Your task to perform on an android device: clear history in the chrome app Image 0: 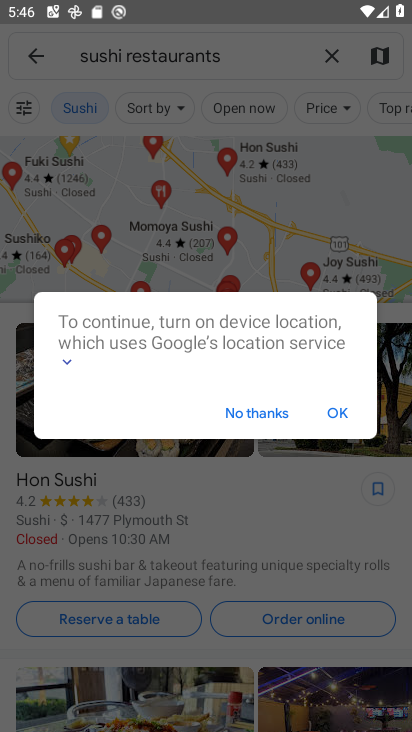
Step 0: press home button
Your task to perform on an android device: clear history in the chrome app Image 1: 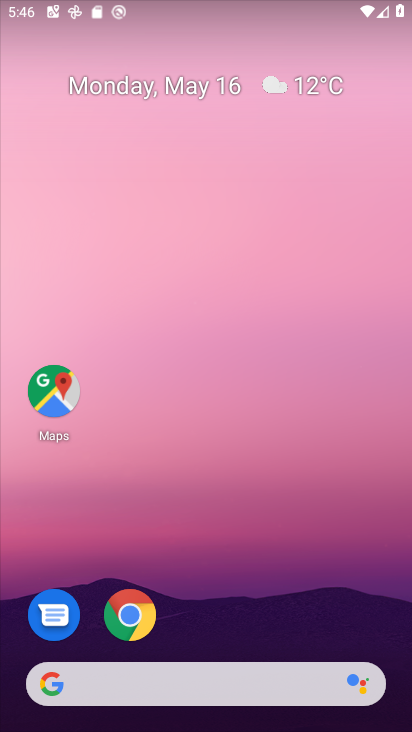
Step 1: click (134, 629)
Your task to perform on an android device: clear history in the chrome app Image 2: 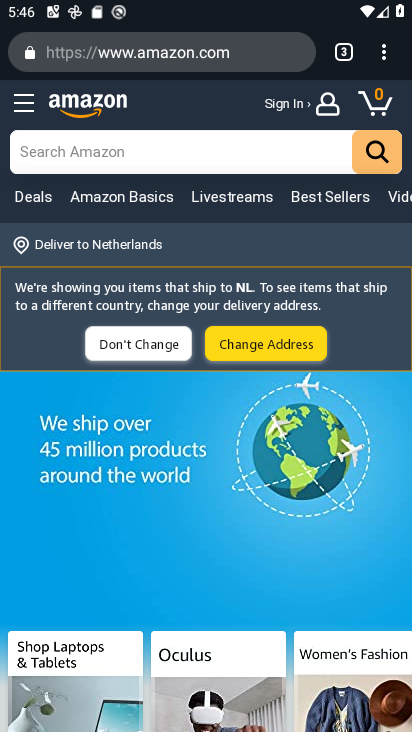
Step 2: click (383, 60)
Your task to perform on an android device: clear history in the chrome app Image 3: 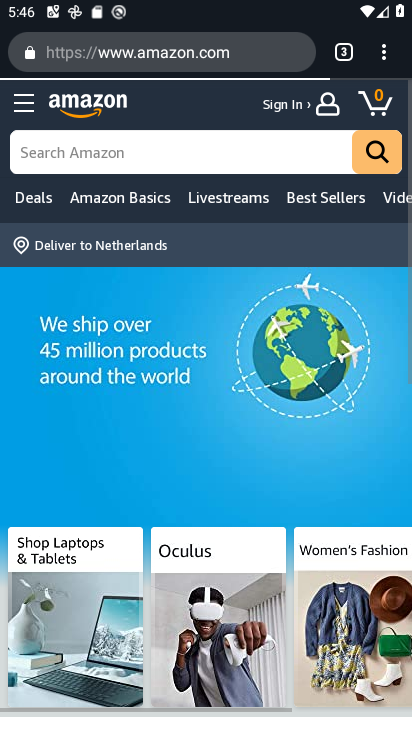
Step 3: click (384, 50)
Your task to perform on an android device: clear history in the chrome app Image 4: 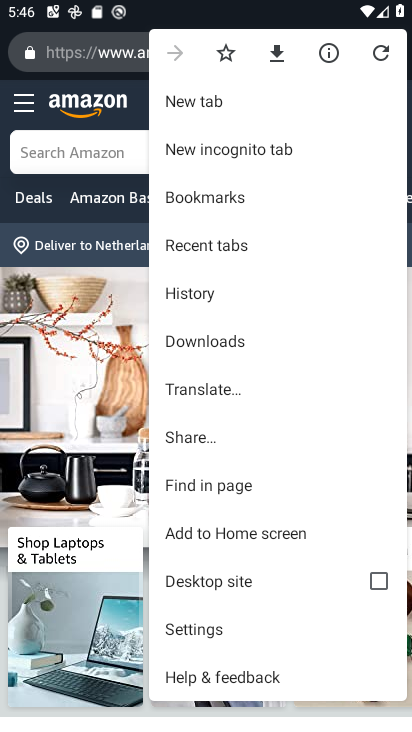
Step 4: click (200, 297)
Your task to perform on an android device: clear history in the chrome app Image 5: 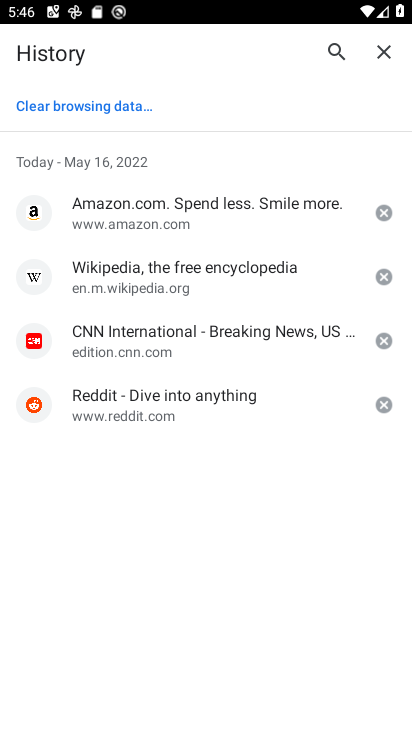
Step 5: click (61, 111)
Your task to perform on an android device: clear history in the chrome app Image 6: 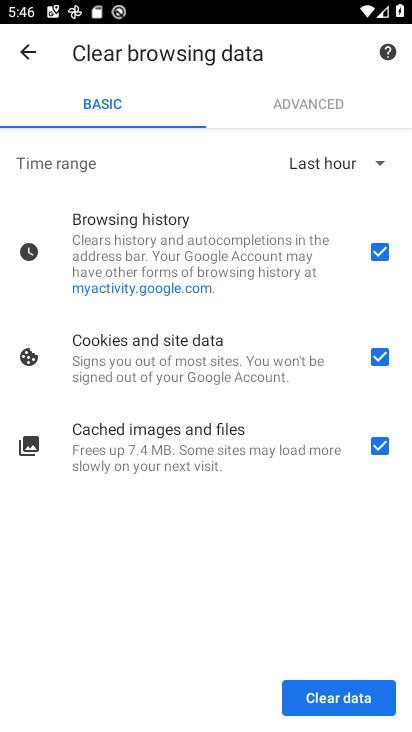
Step 6: click (307, 699)
Your task to perform on an android device: clear history in the chrome app Image 7: 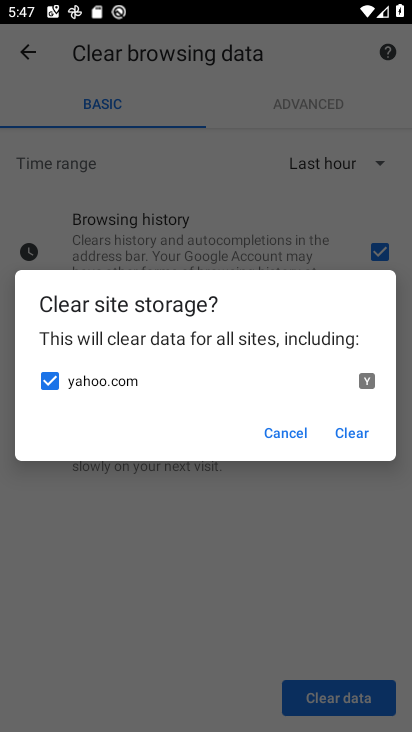
Step 7: click (355, 438)
Your task to perform on an android device: clear history in the chrome app Image 8: 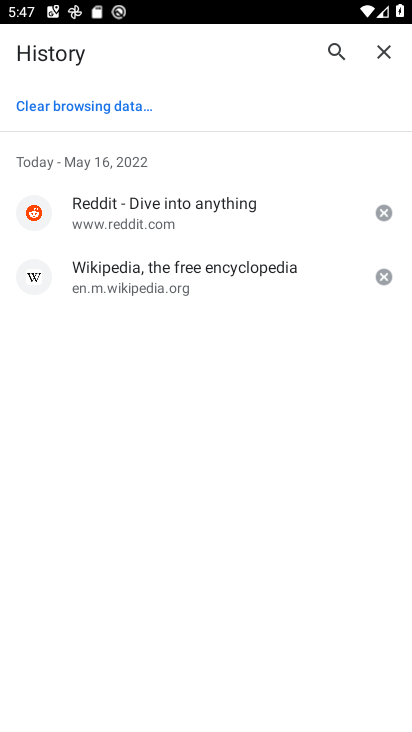
Step 8: task complete